Your task to perform on an android device: Search for Italian restaurants on Maps Image 0: 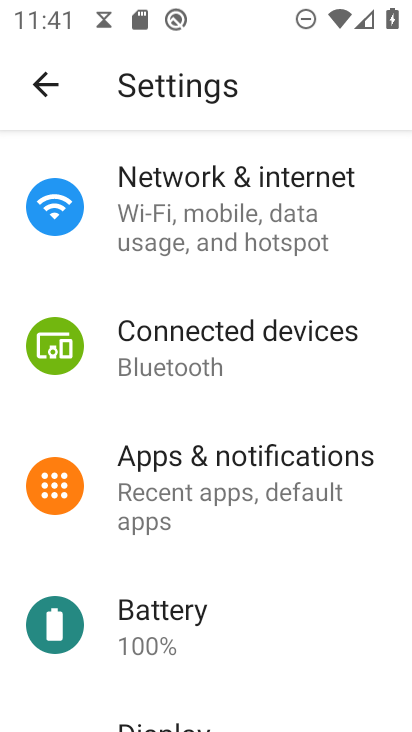
Step 0: press home button
Your task to perform on an android device: Search for Italian restaurants on Maps Image 1: 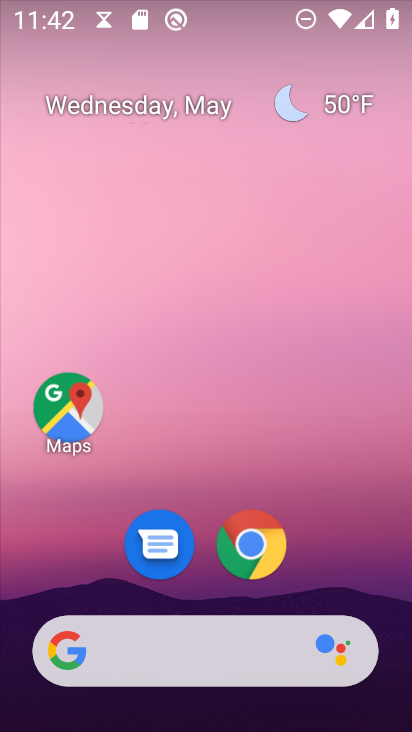
Step 1: click (51, 420)
Your task to perform on an android device: Search for Italian restaurants on Maps Image 2: 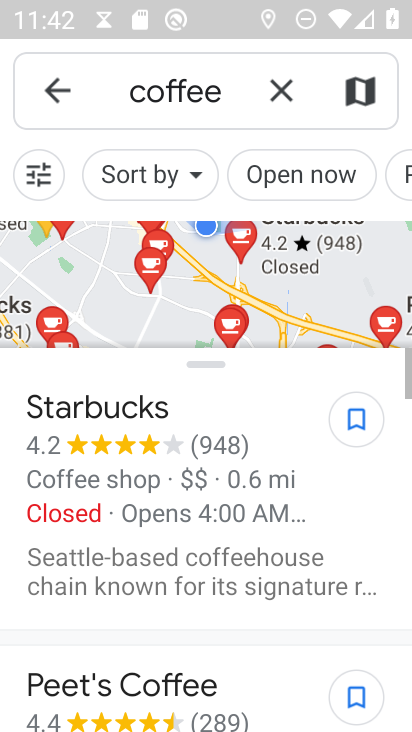
Step 2: click (279, 93)
Your task to perform on an android device: Search for Italian restaurants on Maps Image 3: 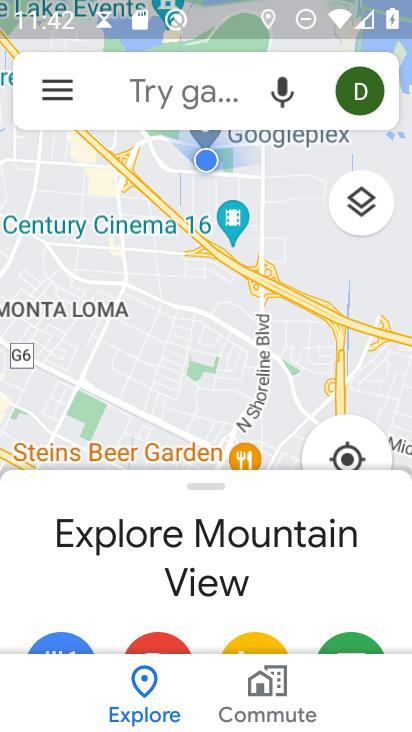
Step 3: click (160, 92)
Your task to perform on an android device: Search for Italian restaurants on Maps Image 4: 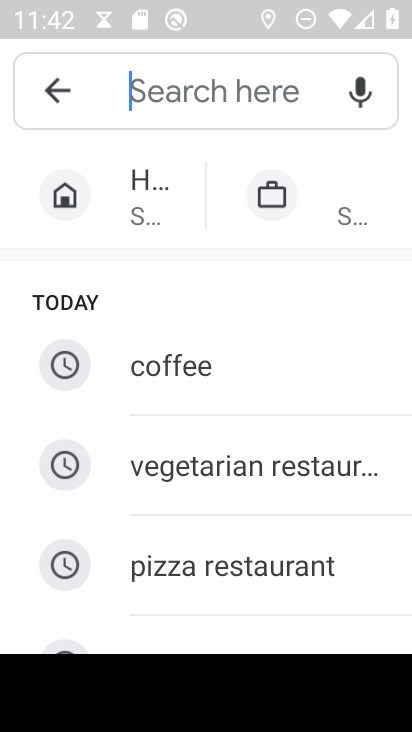
Step 4: drag from (212, 597) to (322, 158)
Your task to perform on an android device: Search for Italian restaurants on Maps Image 5: 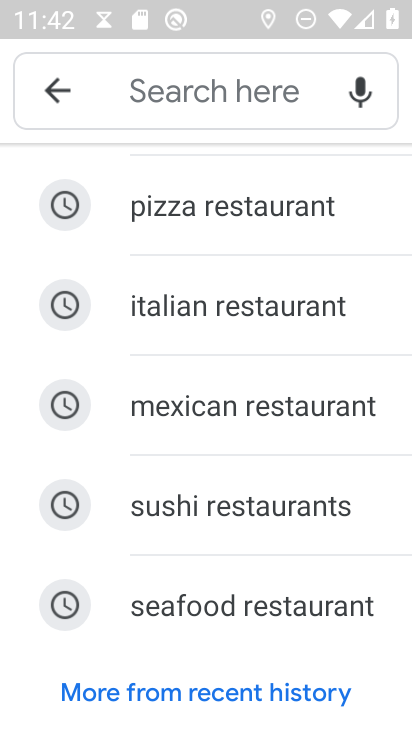
Step 5: click (220, 290)
Your task to perform on an android device: Search for Italian restaurants on Maps Image 6: 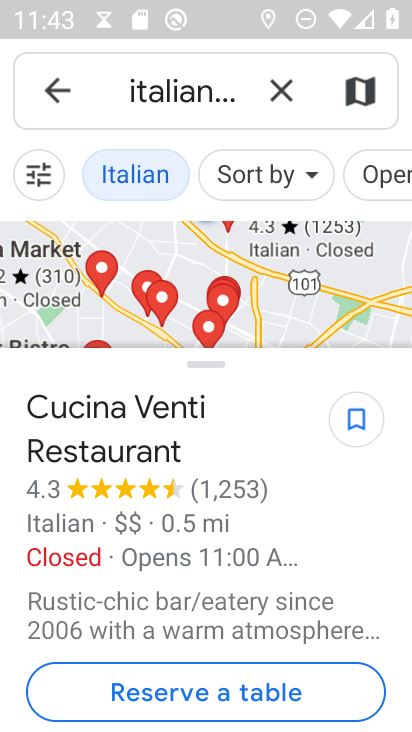
Step 6: task complete